Your task to perform on an android device: Go to battery settings Image 0: 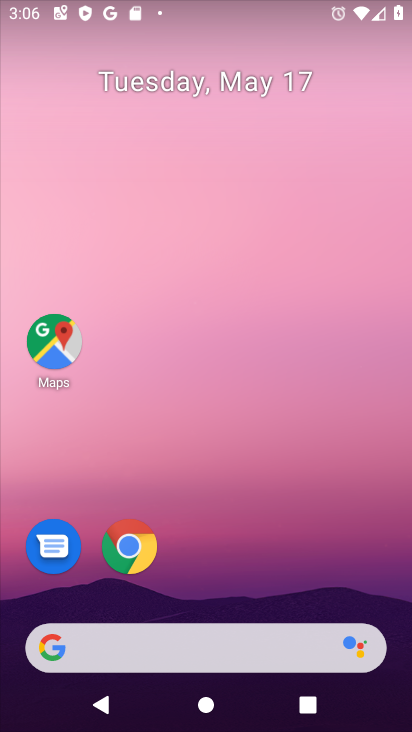
Step 0: drag from (408, 677) to (389, 281)
Your task to perform on an android device: Go to battery settings Image 1: 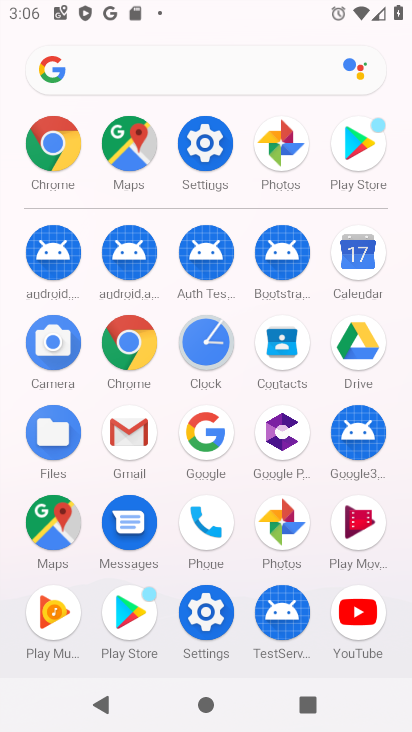
Step 1: click (187, 141)
Your task to perform on an android device: Go to battery settings Image 2: 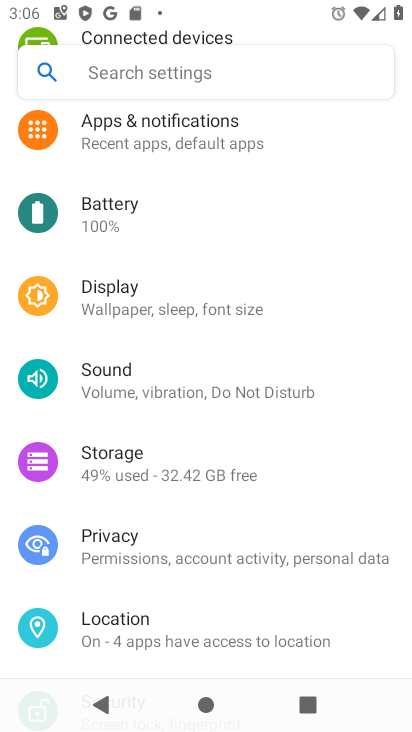
Step 2: click (105, 196)
Your task to perform on an android device: Go to battery settings Image 3: 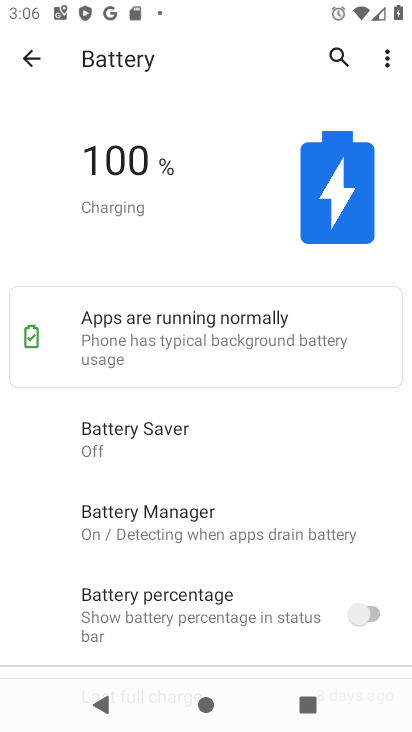
Step 3: task complete